Your task to perform on an android device: see tabs open on other devices in the chrome app Image 0: 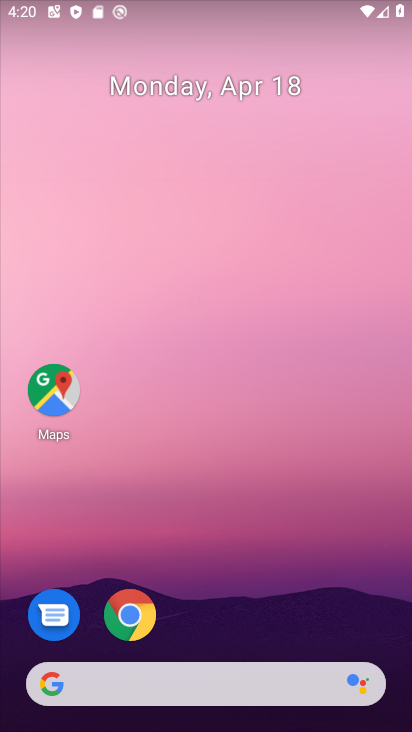
Step 0: click (145, 603)
Your task to perform on an android device: see tabs open on other devices in the chrome app Image 1: 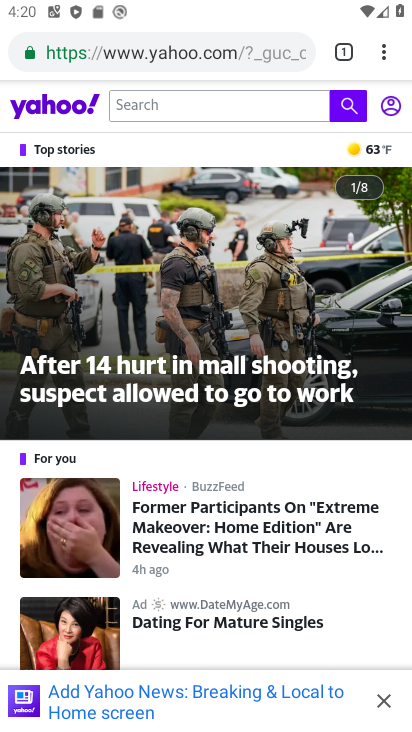
Step 1: click (385, 47)
Your task to perform on an android device: see tabs open on other devices in the chrome app Image 2: 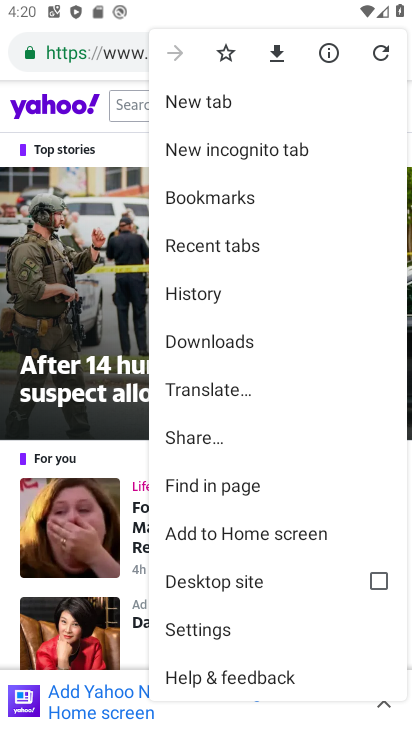
Step 2: click (221, 242)
Your task to perform on an android device: see tabs open on other devices in the chrome app Image 3: 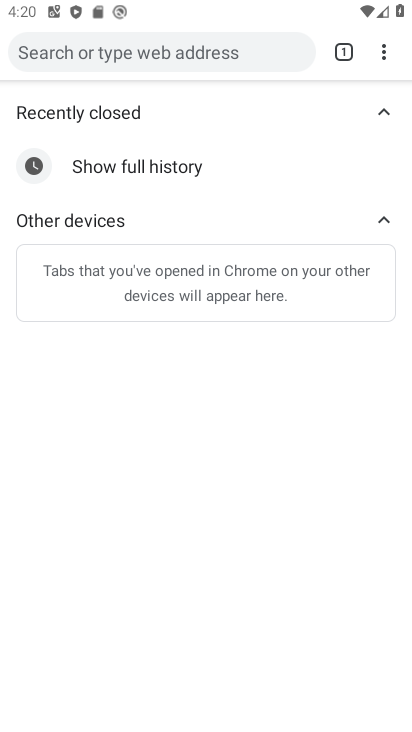
Step 3: task complete